Your task to perform on an android device: Search for pizza restaurants on Maps Image 0: 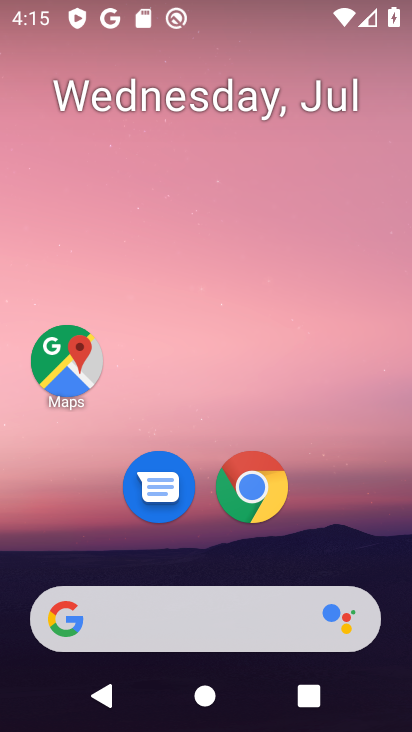
Step 0: click (46, 350)
Your task to perform on an android device: Search for pizza restaurants on Maps Image 1: 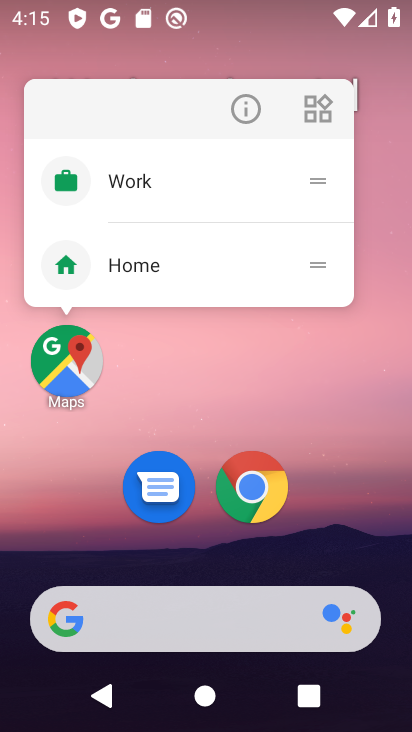
Step 1: click (57, 358)
Your task to perform on an android device: Search for pizza restaurants on Maps Image 2: 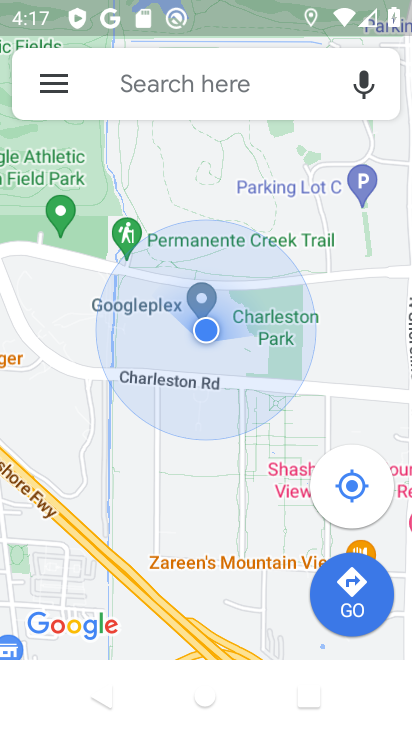
Step 2: click (201, 96)
Your task to perform on an android device: Search for pizza restaurants on Maps Image 3: 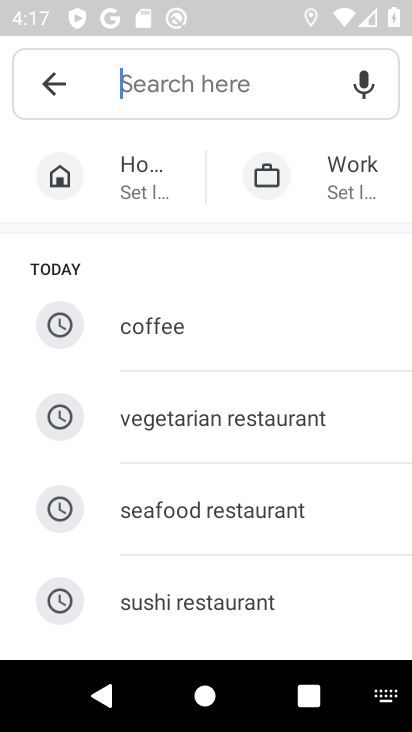
Step 3: drag from (199, 560) to (251, 134)
Your task to perform on an android device: Search for pizza restaurants on Maps Image 4: 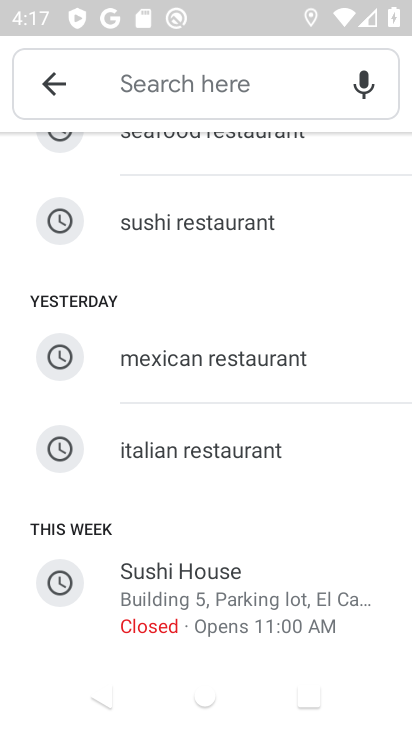
Step 4: drag from (193, 543) to (181, 675)
Your task to perform on an android device: Search for pizza restaurants on Maps Image 5: 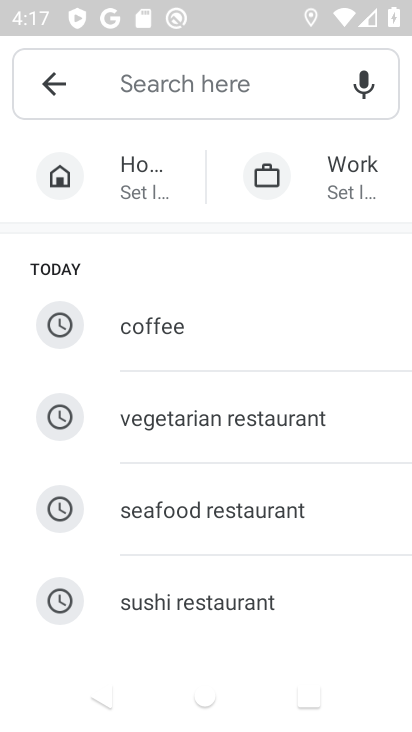
Step 5: click (160, 69)
Your task to perform on an android device: Search for pizza restaurants on Maps Image 6: 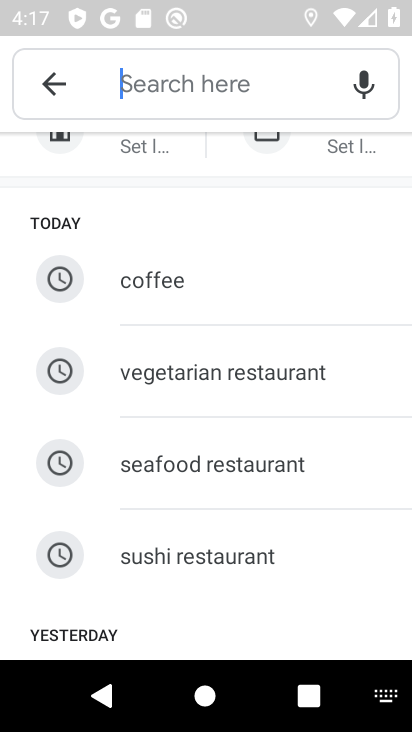
Step 6: type "pizza restaurants"
Your task to perform on an android device: Search for pizza restaurants on Maps Image 7: 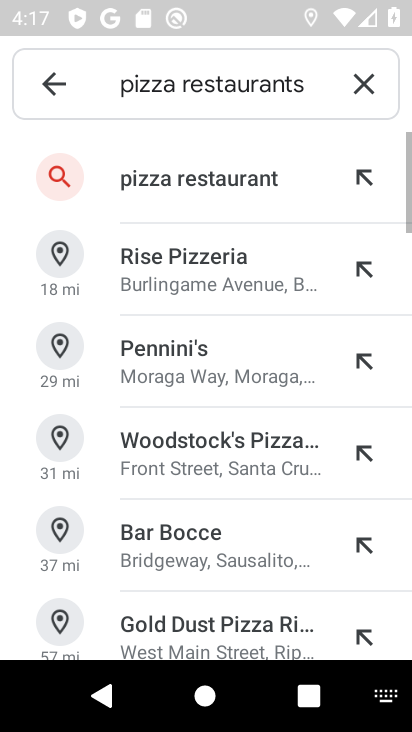
Step 7: click (176, 185)
Your task to perform on an android device: Search for pizza restaurants on Maps Image 8: 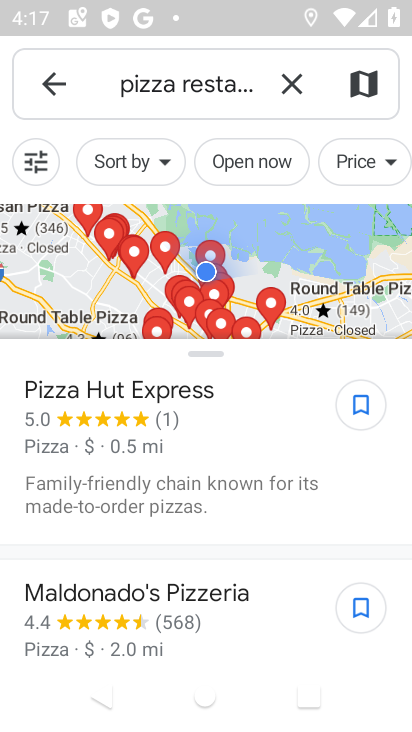
Step 8: task complete